Your task to perform on an android device: all mails in gmail Image 0: 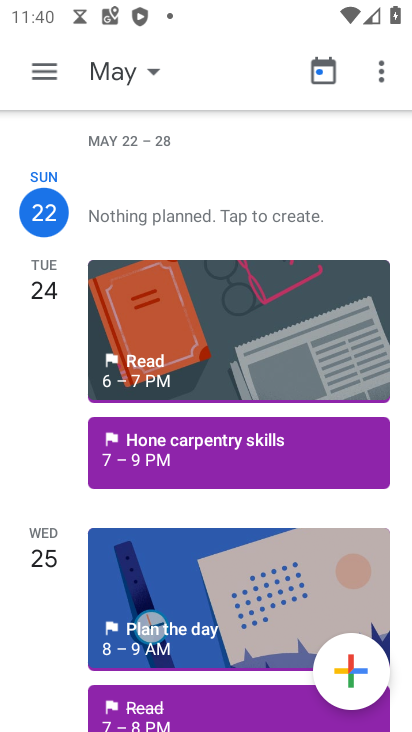
Step 0: press home button
Your task to perform on an android device: all mails in gmail Image 1: 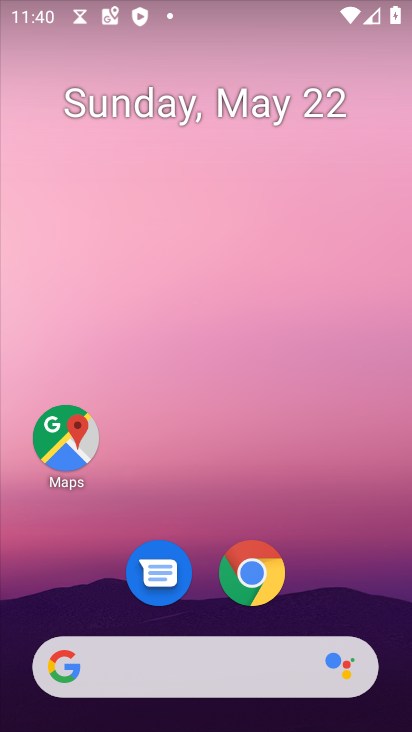
Step 1: drag from (193, 670) to (306, 309)
Your task to perform on an android device: all mails in gmail Image 2: 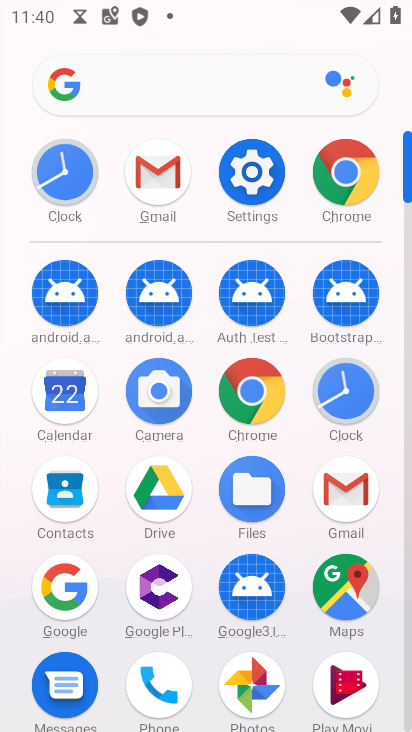
Step 2: click (170, 188)
Your task to perform on an android device: all mails in gmail Image 3: 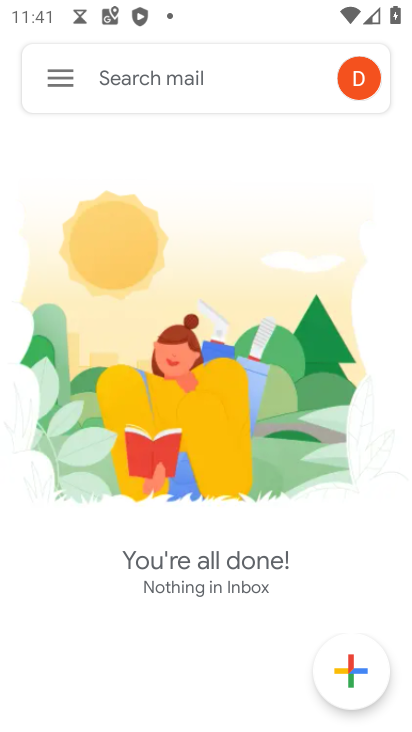
Step 3: click (61, 83)
Your task to perform on an android device: all mails in gmail Image 4: 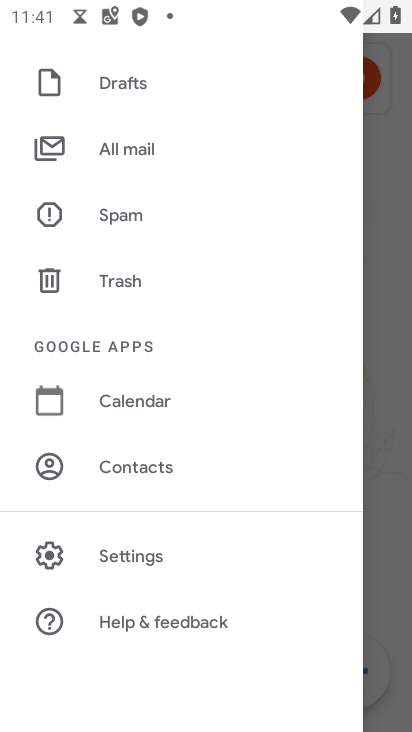
Step 4: click (140, 151)
Your task to perform on an android device: all mails in gmail Image 5: 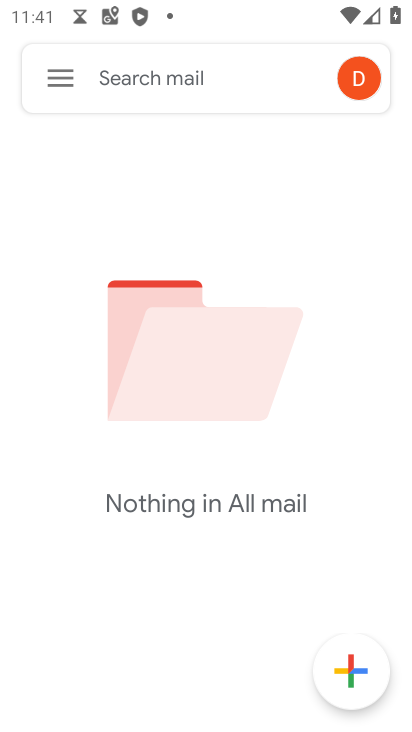
Step 5: task complete